Your task to perform on an android device: Go to Maps Image 0: 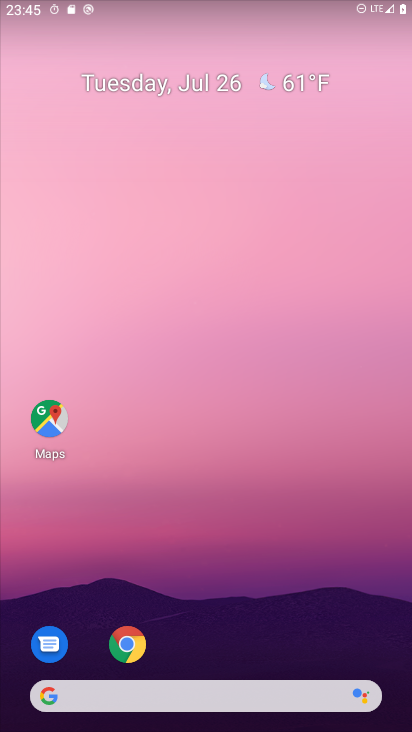
Step 0: click (53, 413)
Your task to perform on an android device: Go to Maps Image 1: 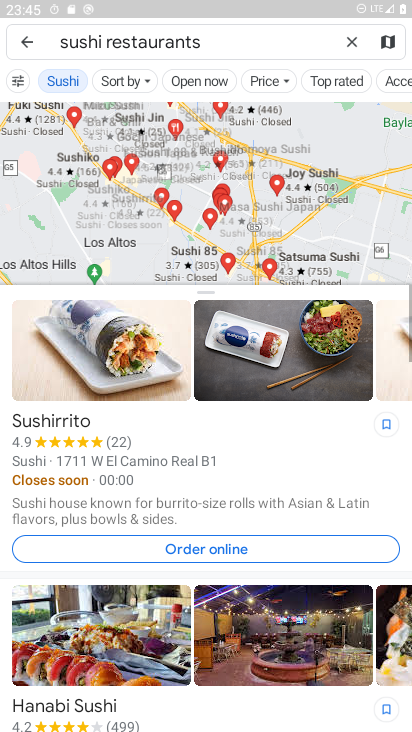
Step 1: task complete